Your task to perform on an android device: turn on bluetooth scan Image 0: 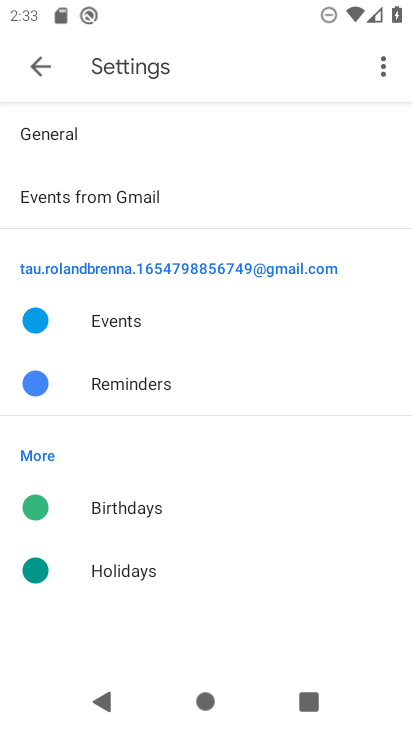
Step 0: press home button
Your task to perform on an android device: turn on bluetooth scan Image 1: 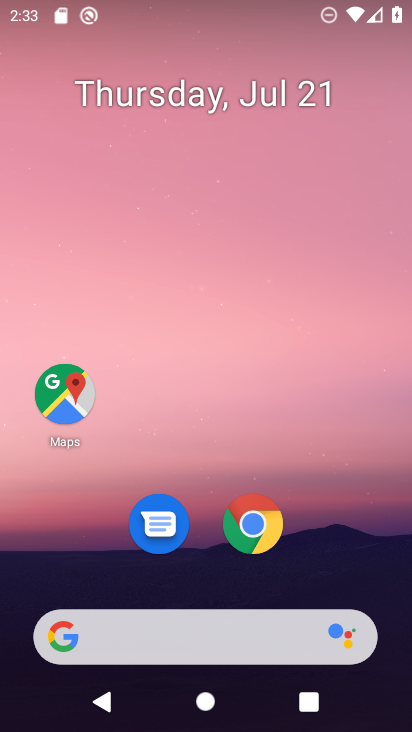
Step 1: drag from (238, 636) to (286, 180)
Your task to perform on an android device: turn on bluetooth scan Image 2: 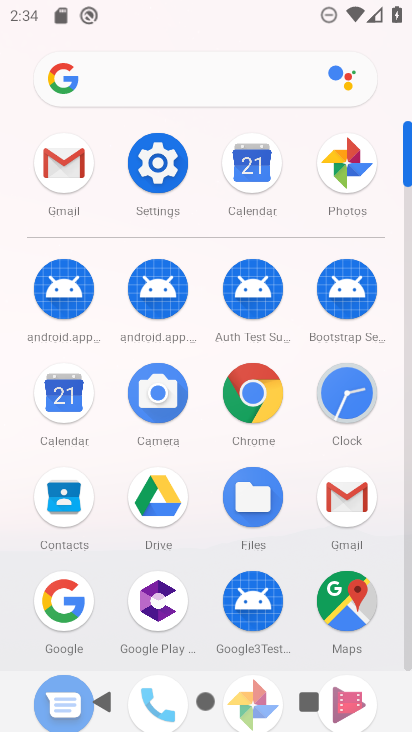
Step 2: click (161, 165)
Your task to perform on an android device: turn on bluetooth scan Image 3: 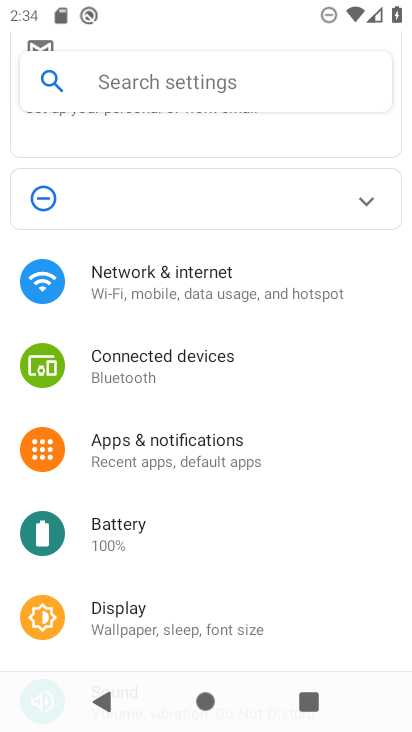
Step 3: drag from (229, 570) to (281, 183)
Your task to perform on an android device: turn on bluetooth scan Image 4: 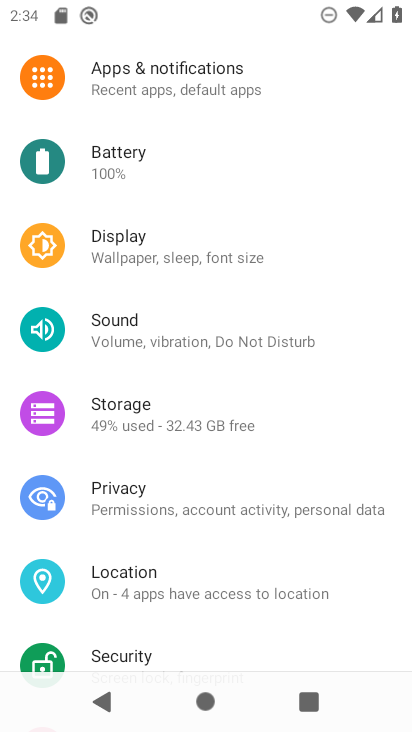
Step 4: click (165, 580)
Your task to perform on an android device: turn on bluetooth scan Image 5: 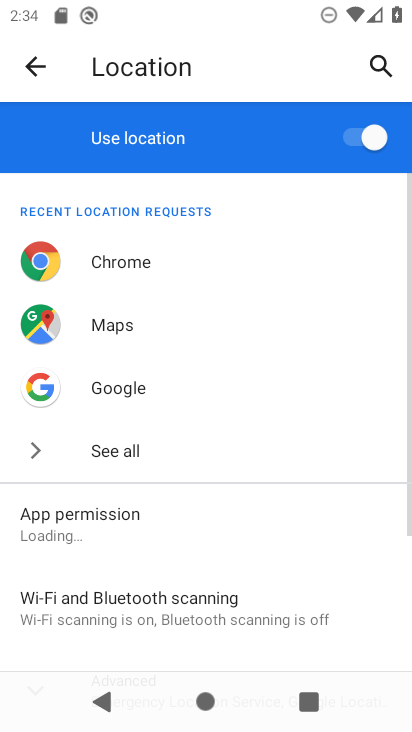
Step 5: drag from (212, 527) to (269, 232)
Your task to perform on an android device: turn on bluetooth scan Image 6: 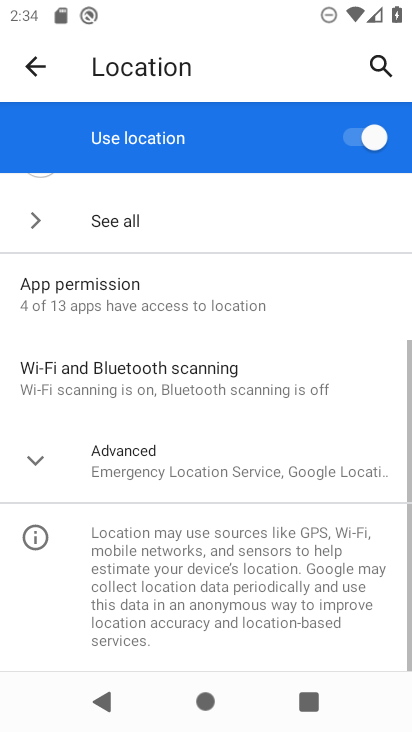
Step 6: click (193, 369)
Your task to perform on an android device: turn on bluetooth scan Image 7: 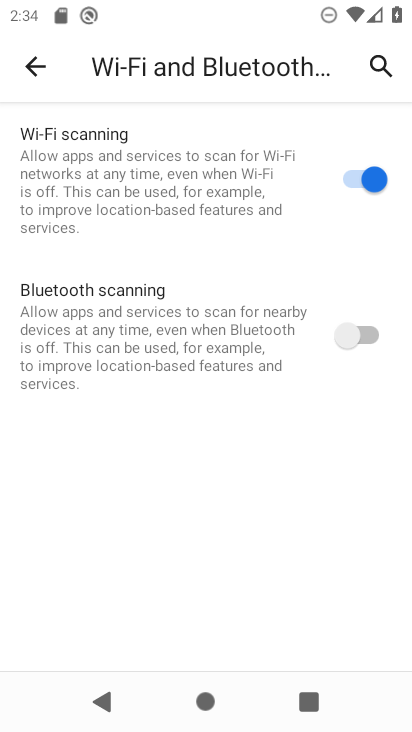
Step 7: click (364, 327)
Your task to perform on an android device: turn on bluetooth scan Image 8: 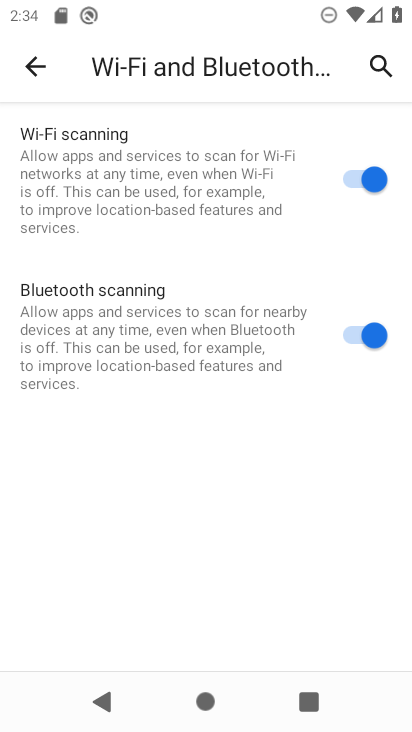
Step 8: task complete